Your task to perform on an android device: When is my next meeting? Image 0: 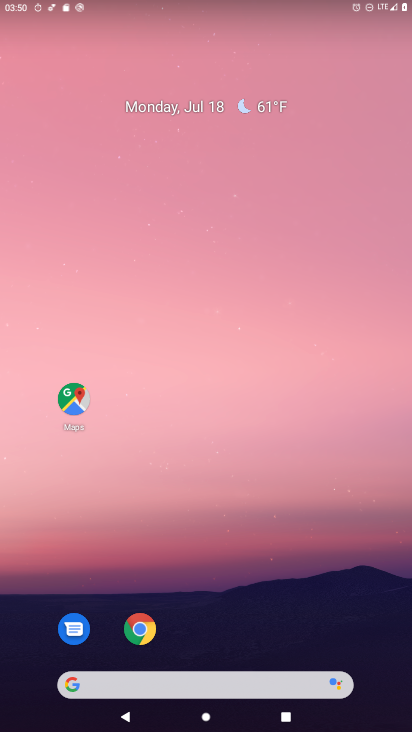
Step 0: drag from (179, 676) to (245, 41)
Your task to perform on an android device: When is my next meeting? Image 1: 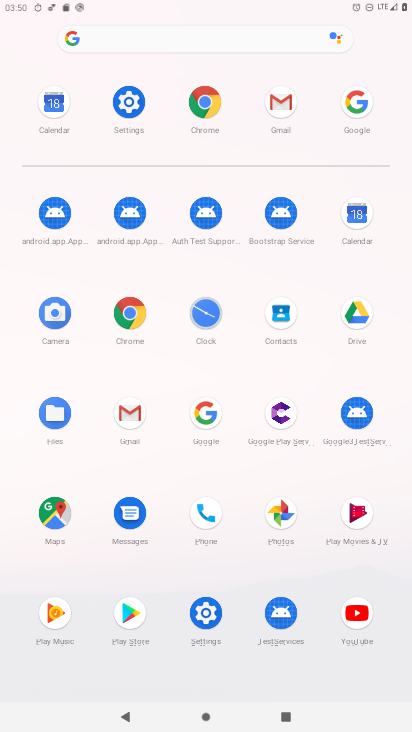
Step 1: click (356, 218)
Your task to perform on an android device: When is my next meeting? Image 2: 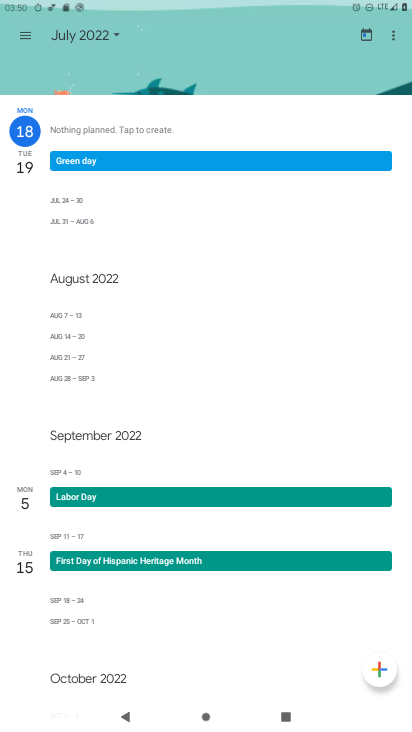
Step 2: click (122, 36)
Your task to perform on an android device: When is my next meeting? Image 3: 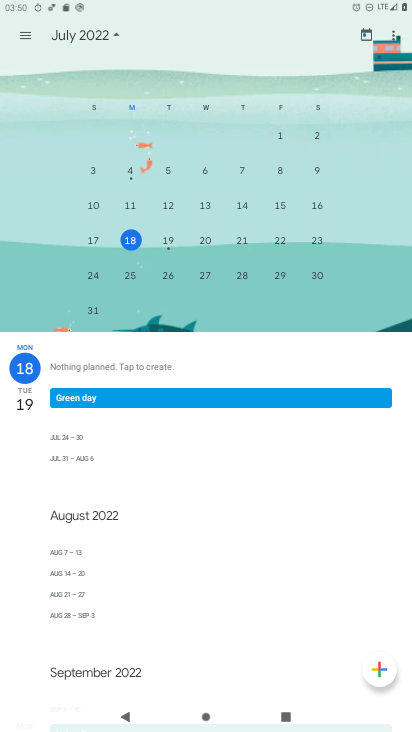
Step 3: click (162, 243)
Your task to perform on an android device: When is my next meeting? Image 4: 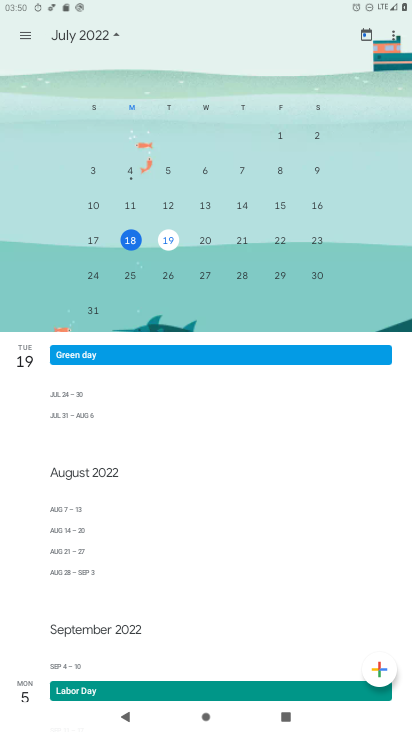
Step 4: click (26, 37)
Your task to perform on an android device: When is my next meeting? Image 5: 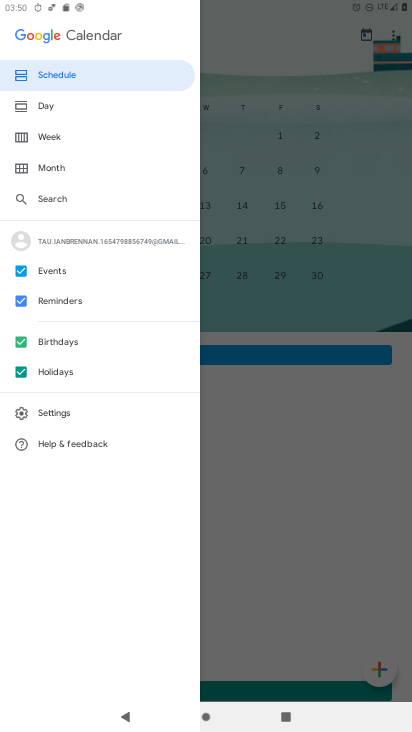
Step 5: click (46, 74)
Your task to perform on an android device: When is my next meeting? Image 6: 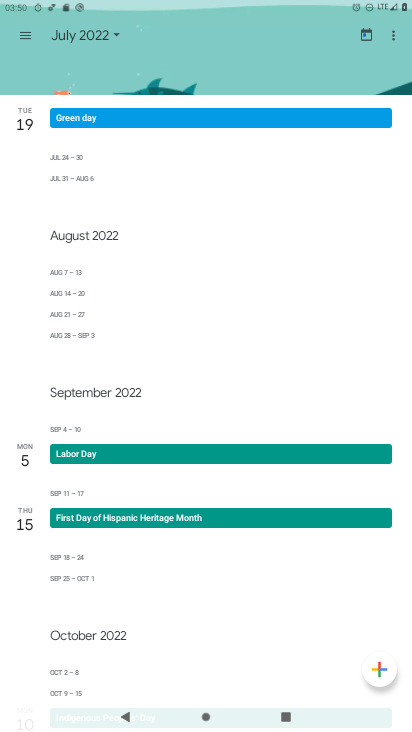
Step 6: task complete